Your task to perform on an android device: toggle data saver in the chrome app Image 0: 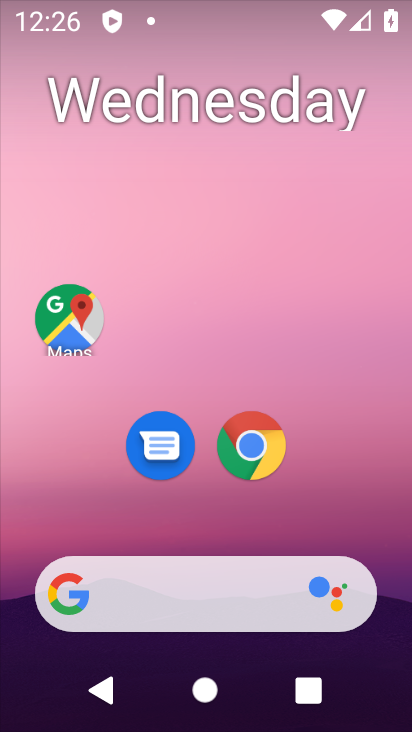
Step 0: click (262, 477)
Your task to perform on an android device: toggle data saver in the chrome app Image 1: 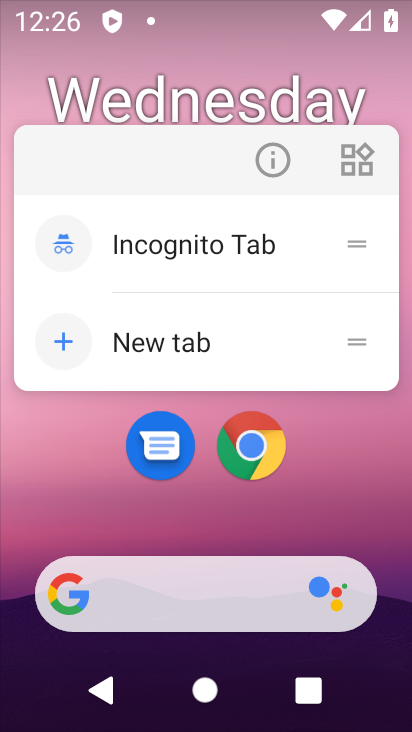
Step 1: click (263, 471)
Your task to perform on an android device: toggle data saver in the chrome app Image 2: 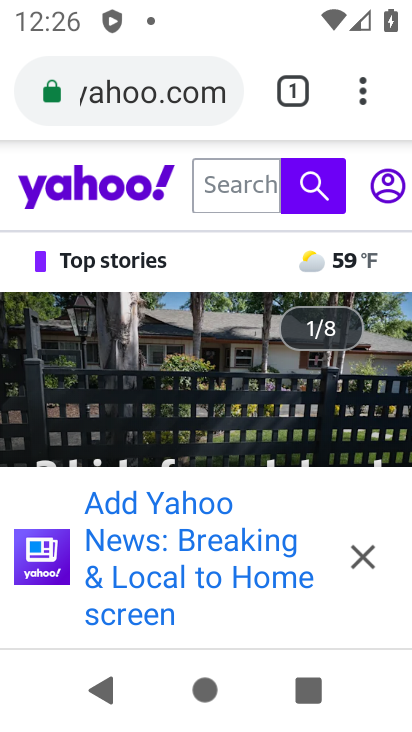
Step 2: click (356, 95)
Your task to perform on an android device: toggle data saver in the chrome app Image 3: 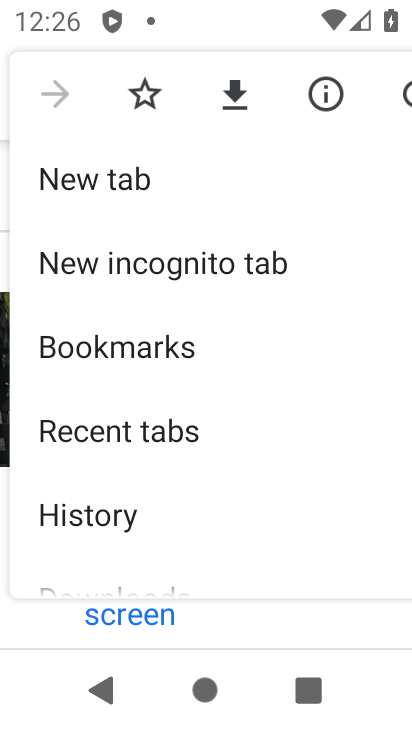
Step 3: drag from (225, 445) to (230, 112)
Your task to perform on an android device: toggle data saver in the chrome app Image 4: 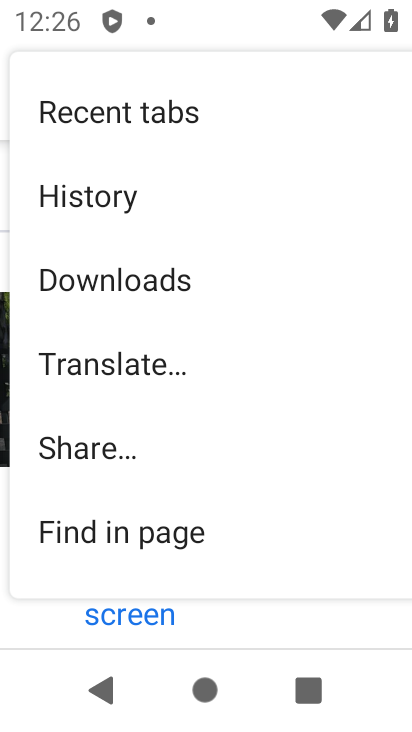
Step 4: drag from (144, 497) to (189, 126)
Your task to perform on an android device: toggle data saver in the chrome app Image 5: 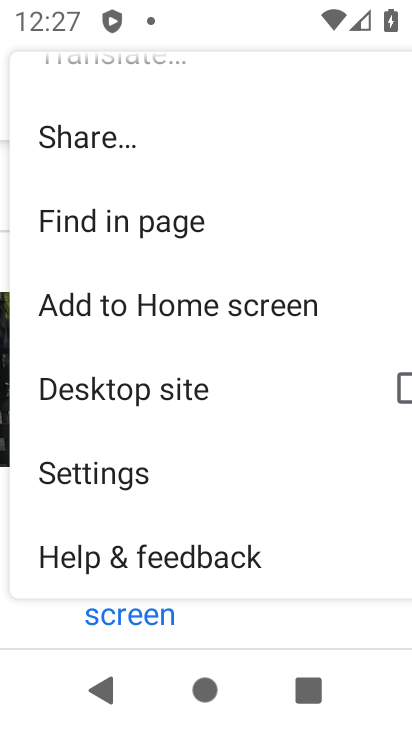
Step 5: click (88, 475)
Your task to perform on an android device: toggle data saver in the chrome app Image 6: 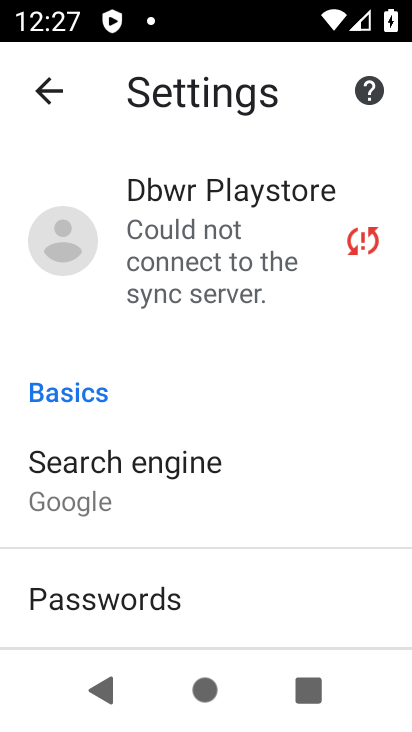
Step 6: drag from (106, 494) to (109, 11)
Your task to perform on an android device: toggle data saver in the chrome app Image 7: 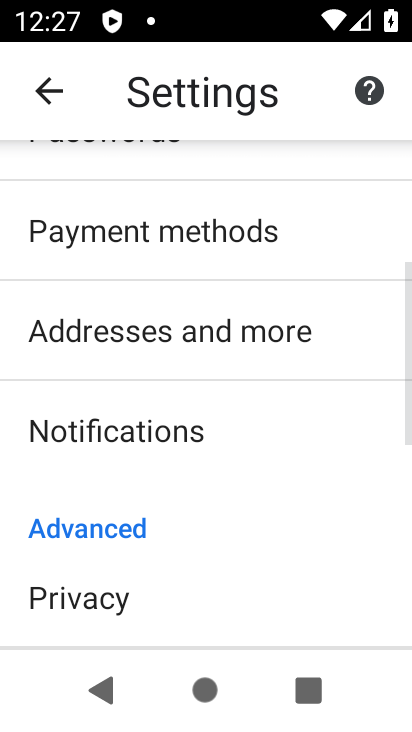
Step 7: drag from (193, 592) to (173, 110)
Your task to perform on an android device: toggle data saver in the chrome app Image 8: 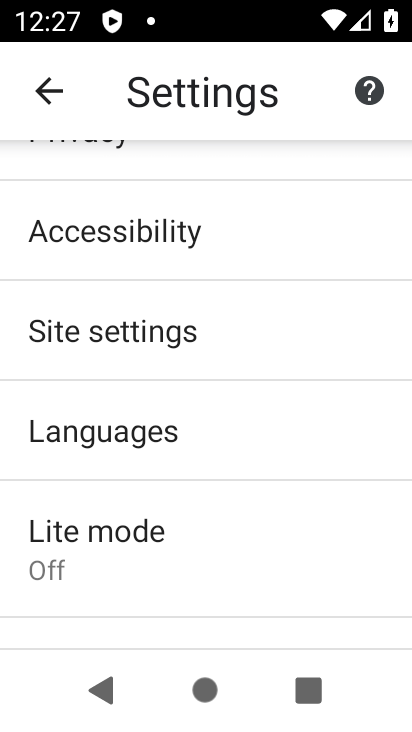
Step 8: click (191, 551)
Your task to perform on an android device: toggle data saver in the chrome app Image 9: 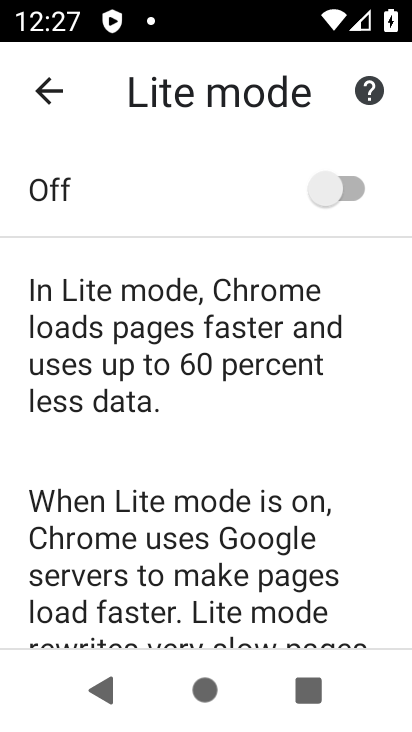
Step 9: click (339, 185)
Your task to perform on an android device: toggle data saver in the chrome app Image 10: 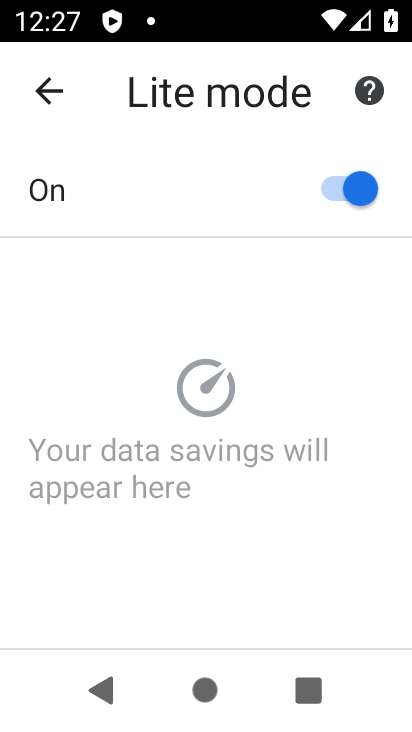
Step 10: task complete